Your task to perform on an android device: empty trash in the gmail app Image 0: 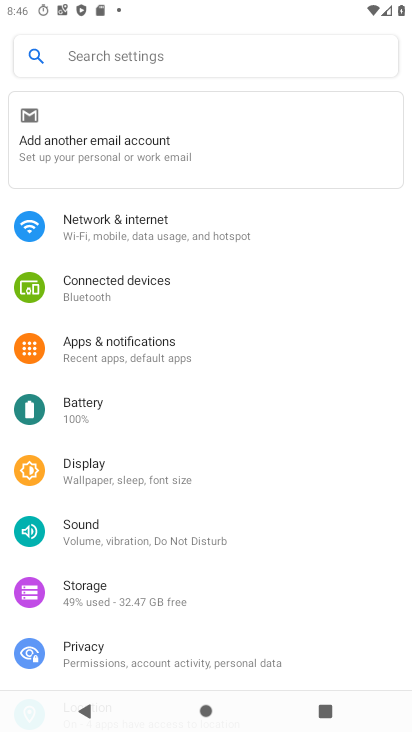
Step 0: press home button
Your task to perform on an android device: empty trash in the gmail app Image 1: 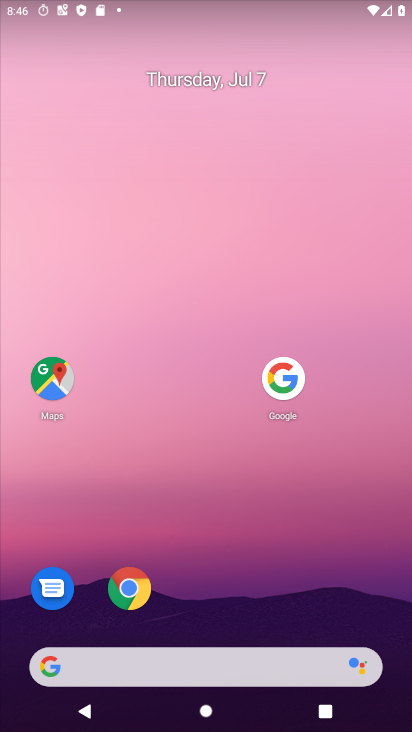
Step 1: drag from (184, 643) to (258, 128)
Your task to perform on an android device: empty trash in the gmail app Image 2: 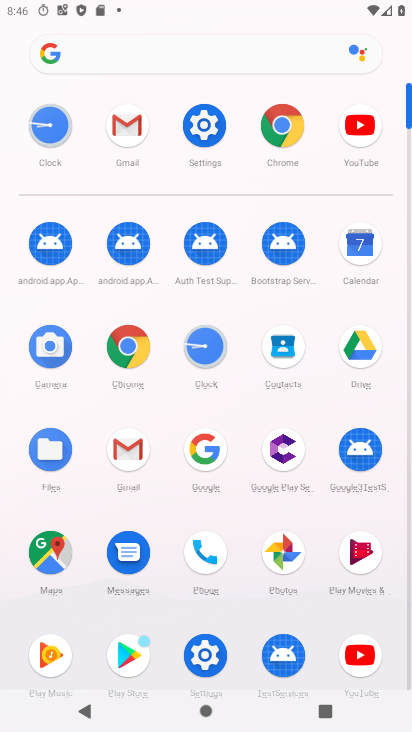
Step 2: click (126, 444)
Your task to perform on an android device: empty trash in the gmail app Image 3: 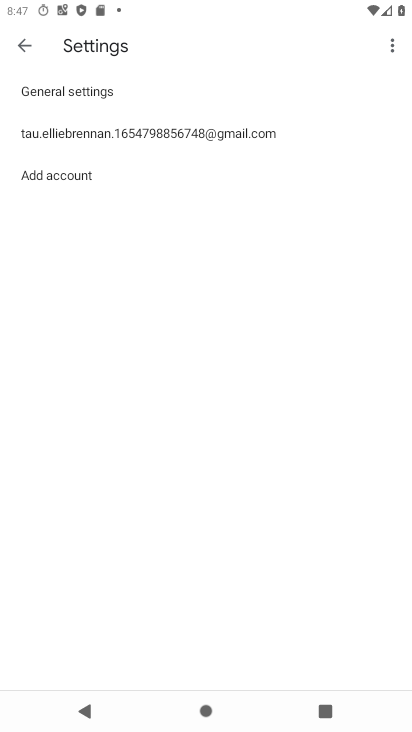
Step 3: click (30, 47)
Your task to perform on an android device: empty trash in the gmail app Image 4: 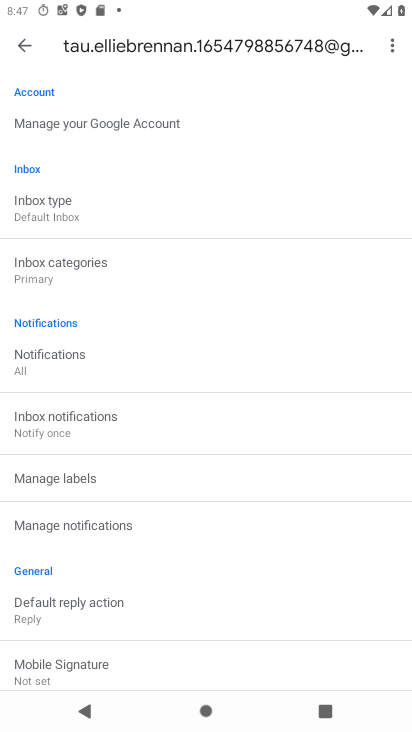
Step 4: click (28, 42)
Your task to perform on an android device: empty trash in the gmail app Image 5: 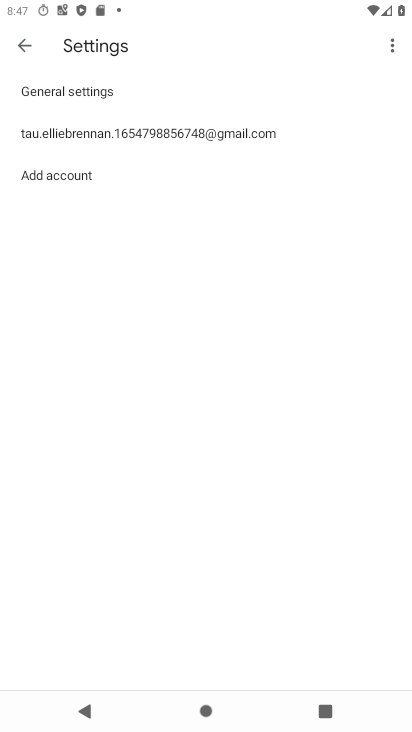
Step 5: click (28, 42)
Your task to perform on an android device: empty trash in the gmail app Image 6: 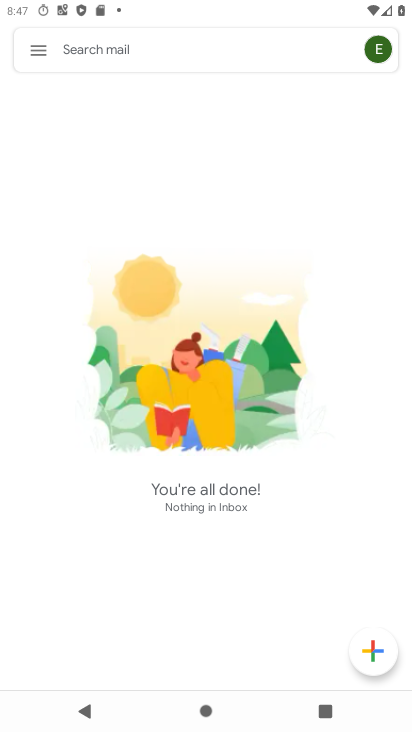
Step 6: click (35, 49)
Your task to perform on an android device: empty trash in the gmail app Image 7: 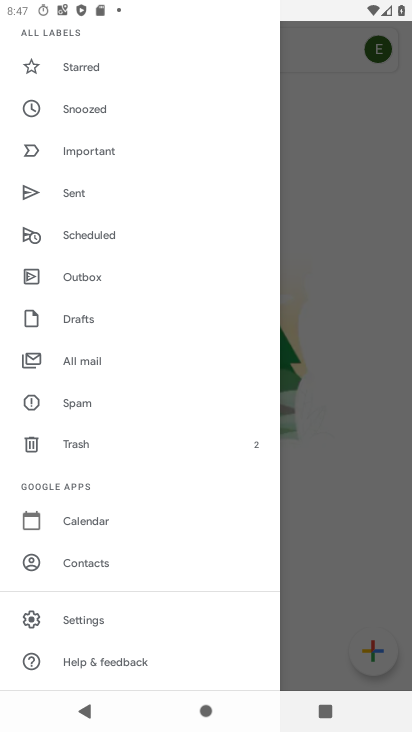
Step 7: click (76, 438)
Your task to perform on an android device: empty trash in the gmail app Image 8: 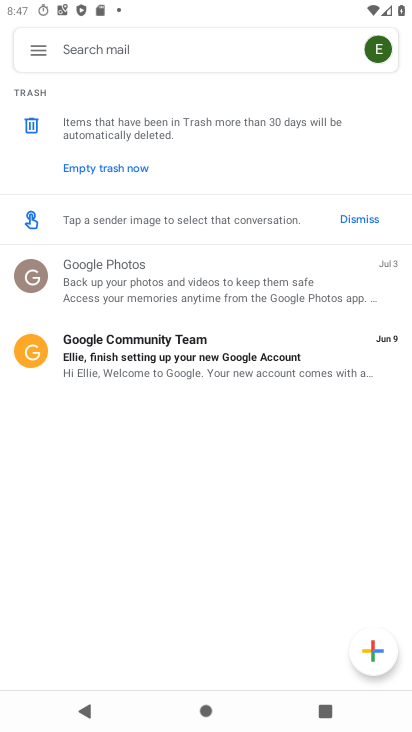
Step 8: click (122, 162)
Your task to perform on an android device: empty trash in the gmail app Image 9: 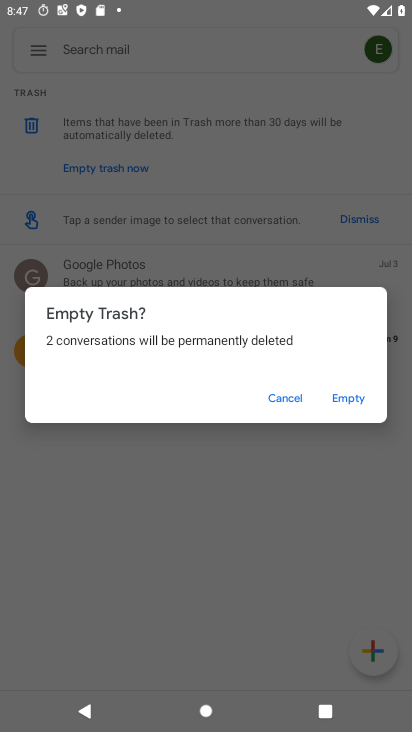
Step 9: click (359, 393)
Your task to perform on an android device: empty trash in the gmail app Image 10: 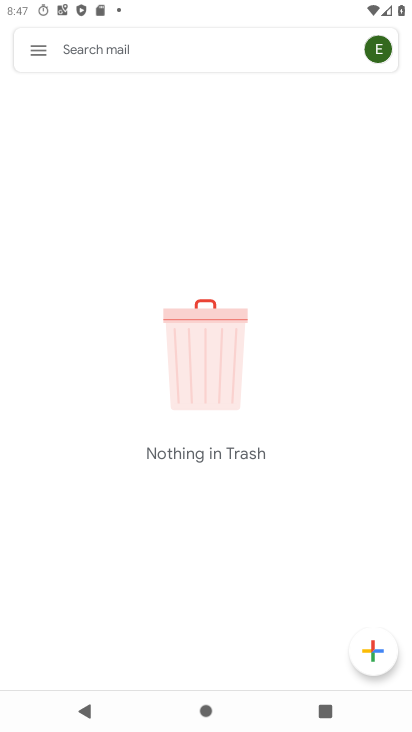
Step 10: task complete